Your task to perform on an android device: toggle airplane mode Image 0: 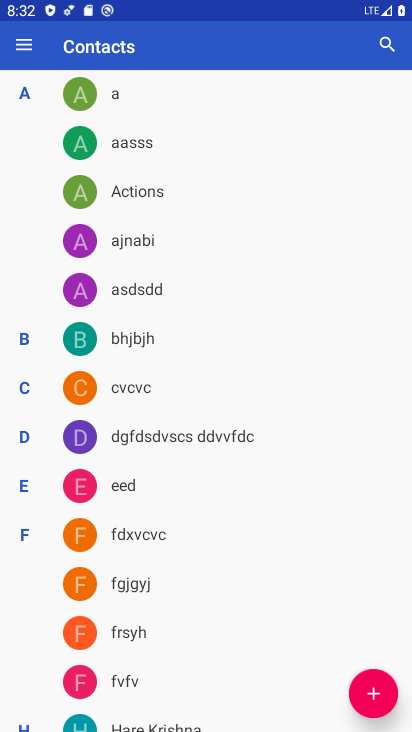
Step 0: press home button
Your task to perform on an android device: toggle airplane mode Image 1: 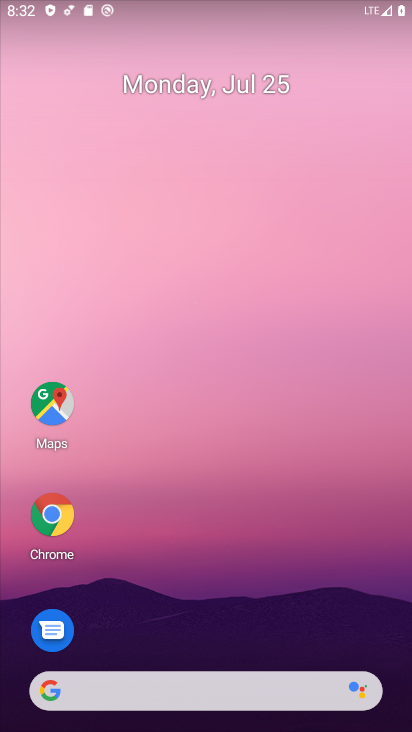
Step 1: drag from (11, 714) to (227, 53)
Your task to perform on an android device: toggle airplane mode Image 2: 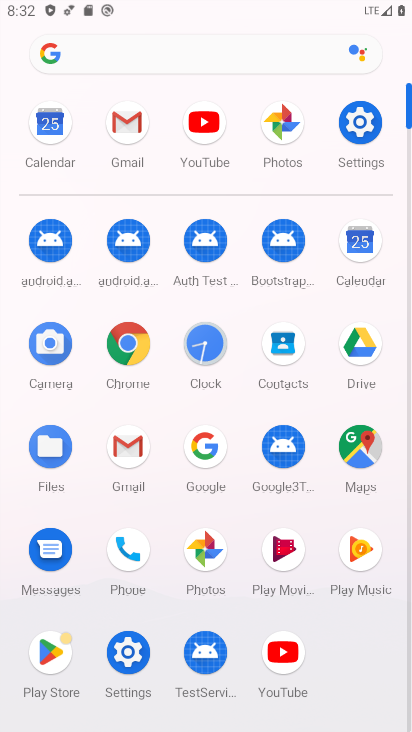
Step 2: click (119, 653)
Your task to perform on an android device: toggle airplane mode Image 3: 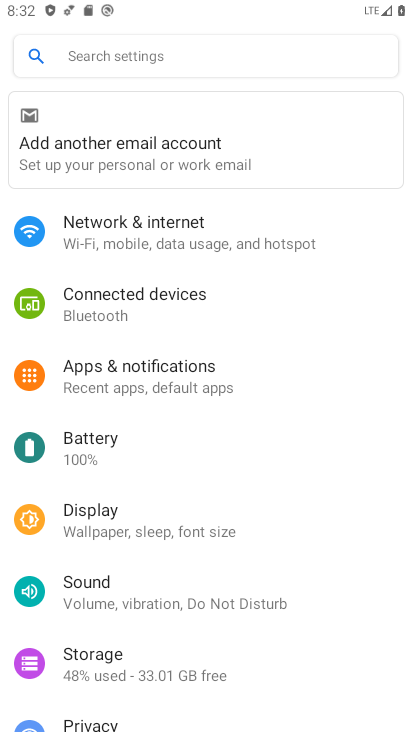
Step 3: click (142, 236)
Your task to perform on an android device: toggle airplane mode Image 4: 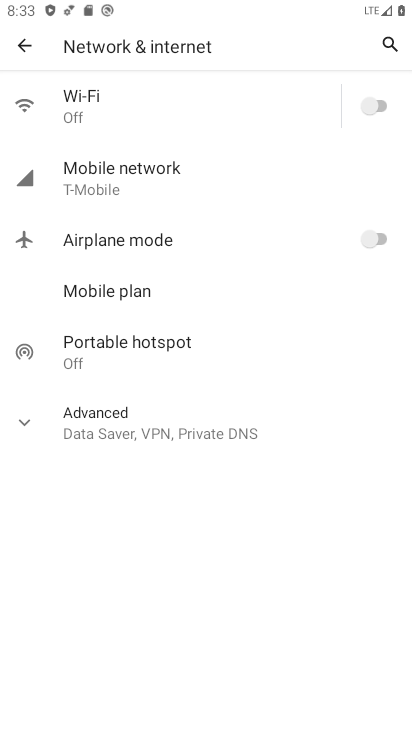
Step 4: click (353, 239)
Your task to perform on an android device: toggle airplane mode Image 5: 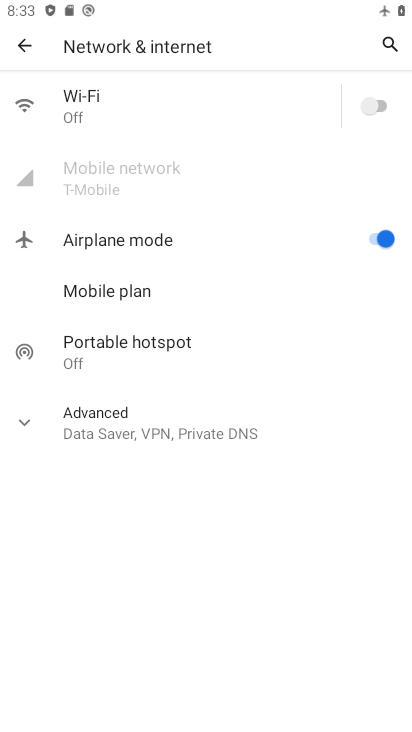
Step 5: task complete